Your task to perform on an android device: star an email in the gmail app Image 0: 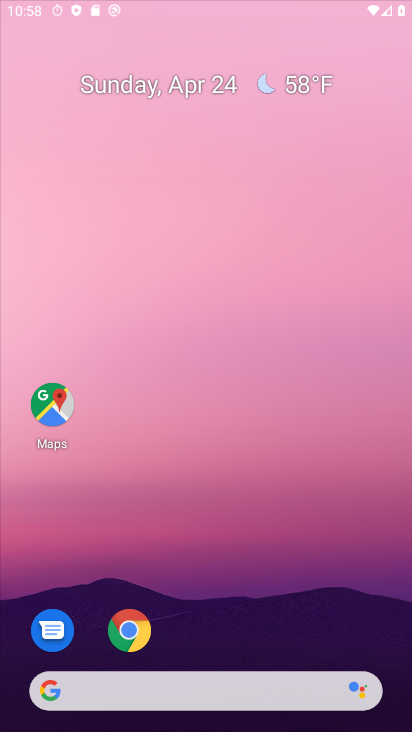
Step 0: click (291, 249)
Your task to perform on an android device: star an email in the gmail app Image 1: 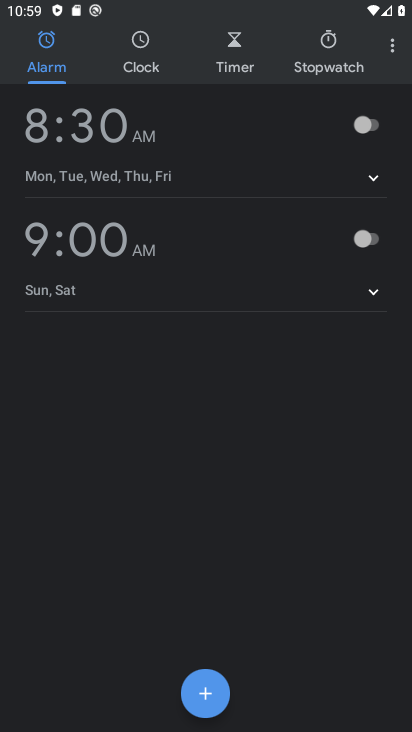
Step 1: press home button
Your task to perform on an android device: star an email in the gmail app Image 2: 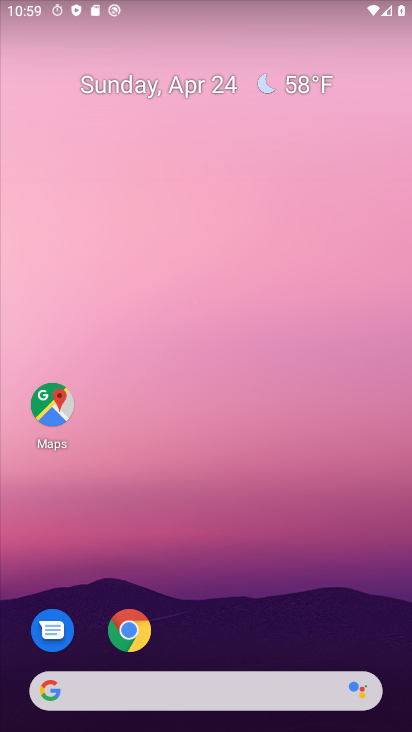
Step 2: drag from (218, 627) to (273, 233)
Your task to perform on an android device: star an email in the gmail app Image 3: 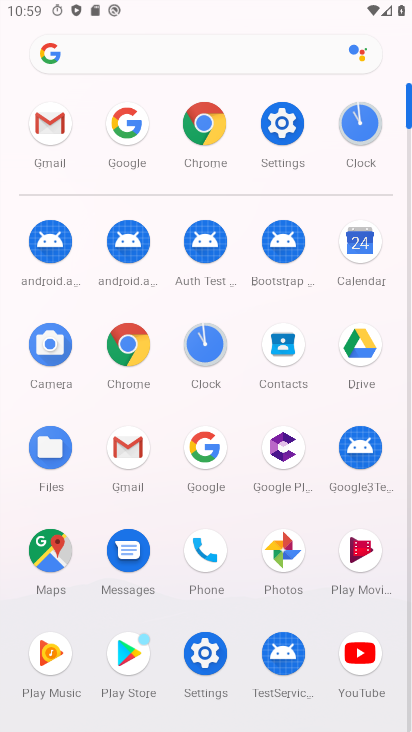
Step 3: click (138, 466)
Your task to perform on an android device: star an email in the gmail app Image 4: 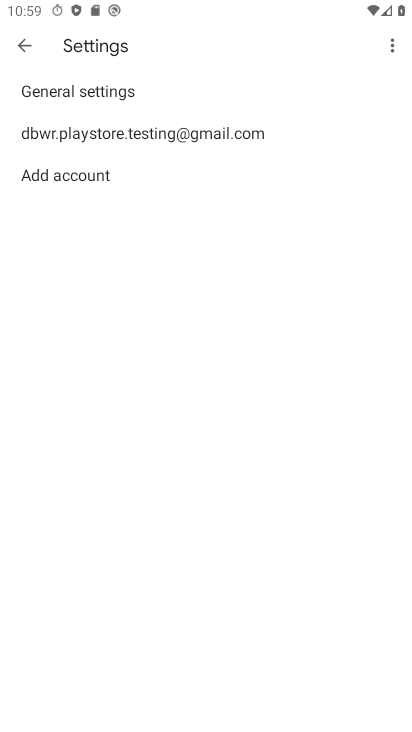
Step 4: click (32, 46)
Your task to perform on an android device: star an email in the gmail app Image 5: 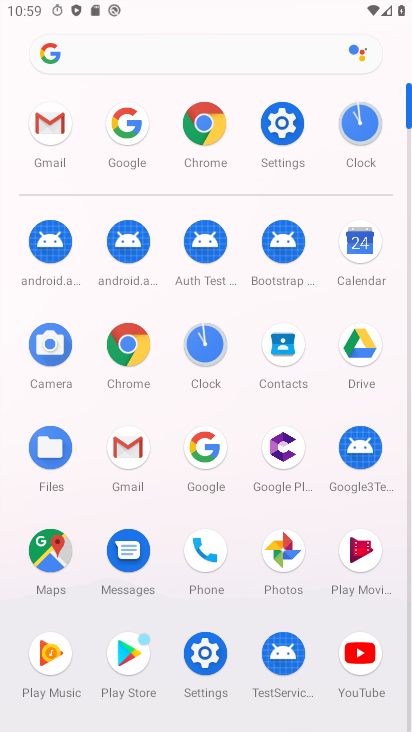
Step 5: click (133, 468)
Your task to perform on an android device: star an email in the gmail app Image 6: 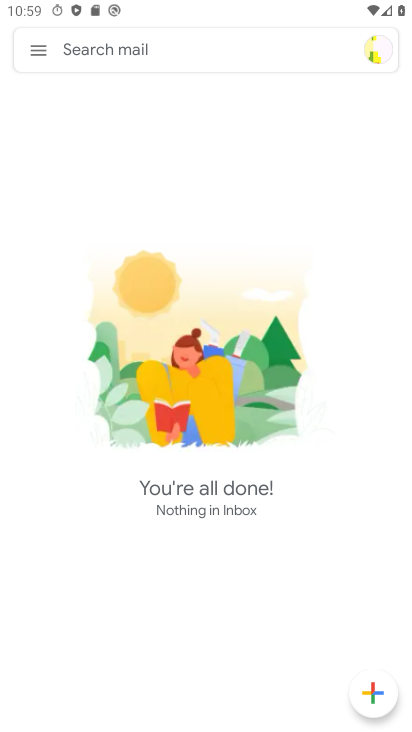
Step 6: click (43, 62)
Your task to perform on an android device: star an email in the gmail app Image 7: 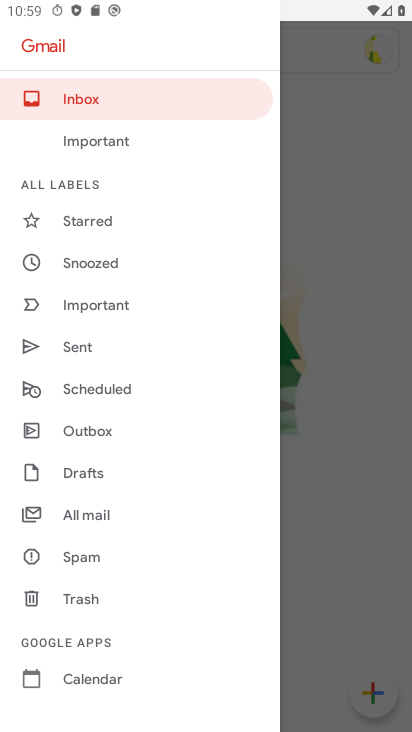
Step 7: click (125, 516)
Your task to perform on an android device: star an email in the gmail app Image 8: 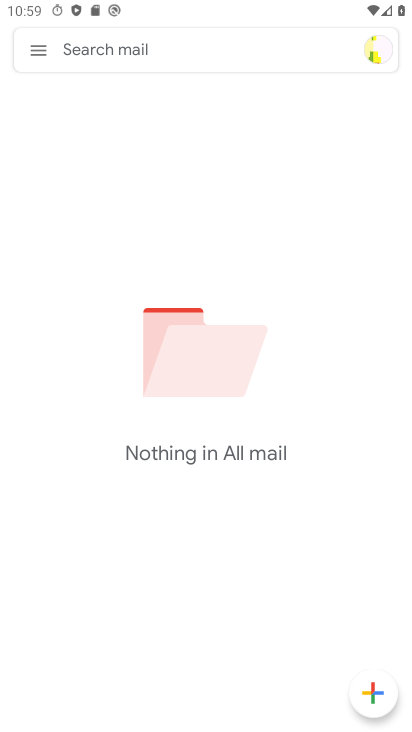
Step 8: task complete